Your task to perform on an android device: turn off priority inbox in the gmail app Image 0: 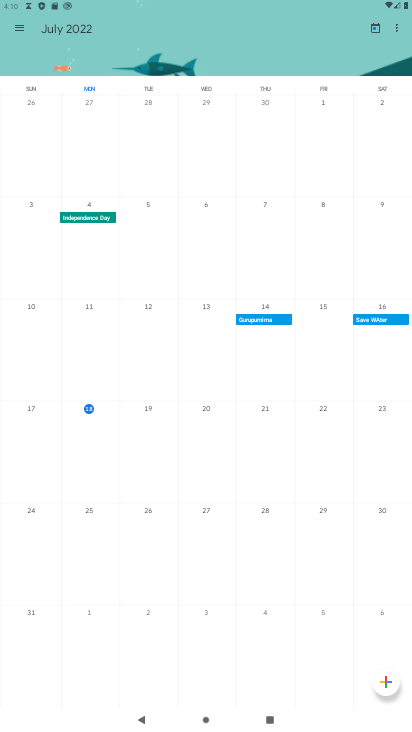
Step 0: press home button
Your task to perform on an android device: turn off priority inbox in the gmail app Image 1: 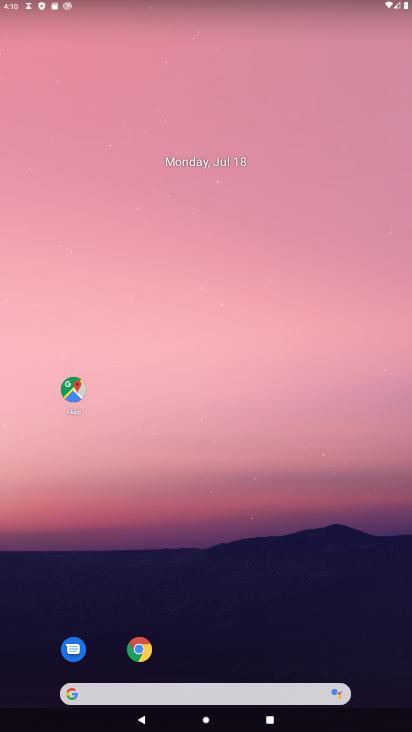
Step 1: drag from (247, 588) to (279, 71)
Your task to perform on an android device: turn off priority inbox in the gmail app Image 2: 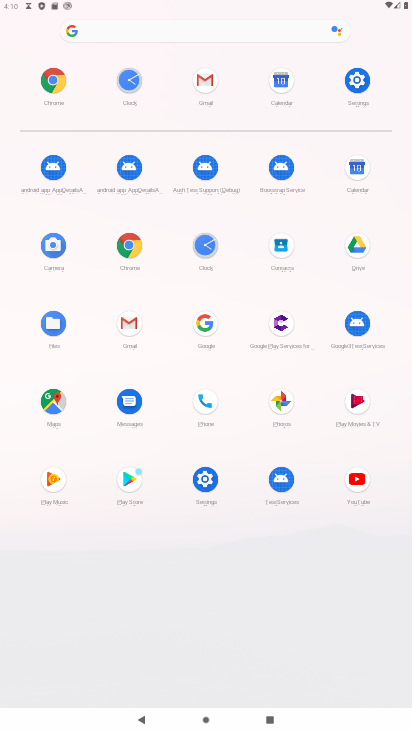
Step 2: click (195, 76)
Your task to perform on an android device: turn off priority inbox in the gmail app Image 3: 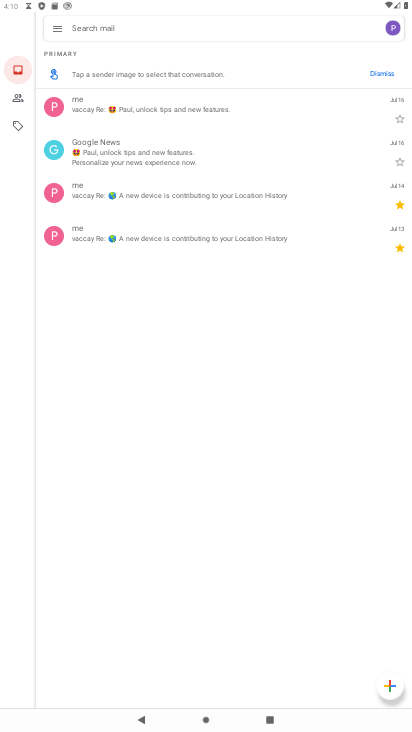
Step 3: click (50, 24)
Your task to perform on an android device: turn off priority inbox in the gmail app Image 4: 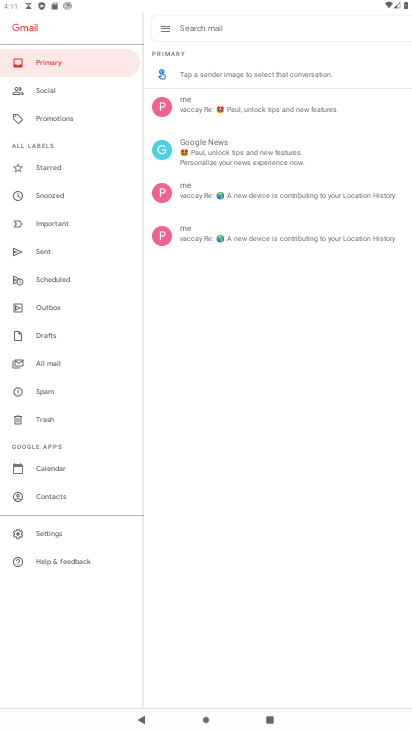
Step 4: click (47, 535)
Your task to perform on an android device: turn off priority inbox in the gmail app Image 5: 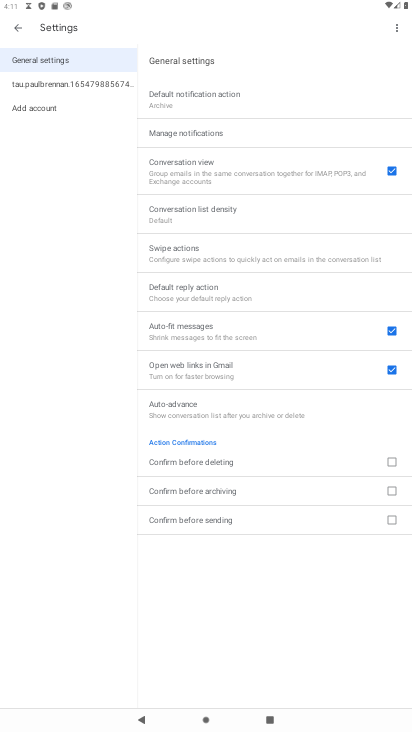
Step 5: click (37, 80)
Your task to perform on an android device: turn off priority inbox in the gmail app Image 6: 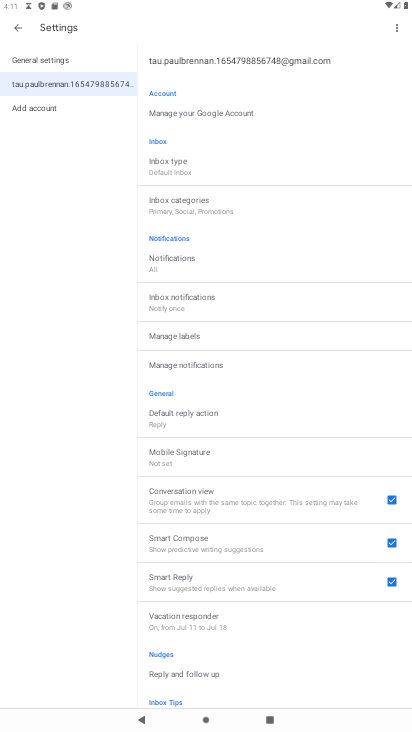
Step 6: click (163, 163)
Your task to perform on an android device: turn off priority inbox in the gmail app Image 7: 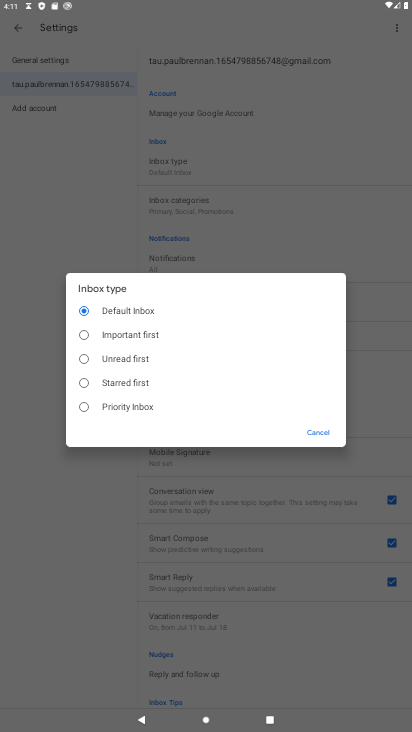
Step 7: task complete